Your task to perform on an android device: Play the last video I watched on Youtube Image 0: 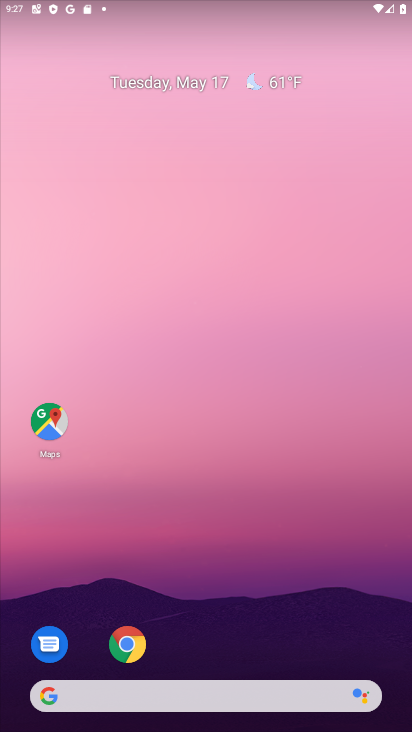
Step 0: drag from (213, 637) to (253, 145)
Your task to perform on an android device: Play the last video I watched on Youtube Image 1: 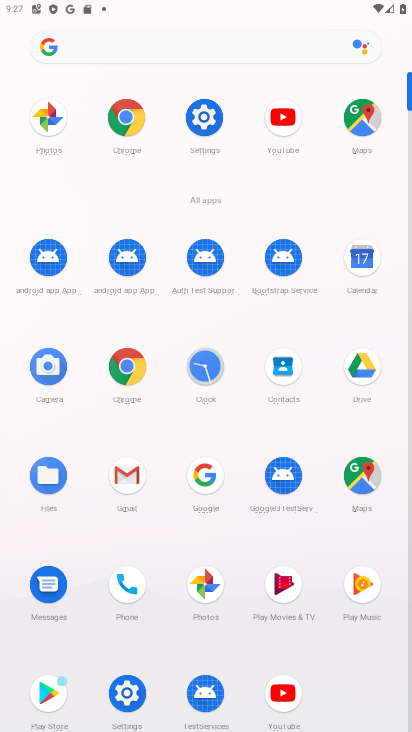
Step 1: click (291, 132)
Your task to perform on an android device: Play the last video I watched on Youtube Image 2: 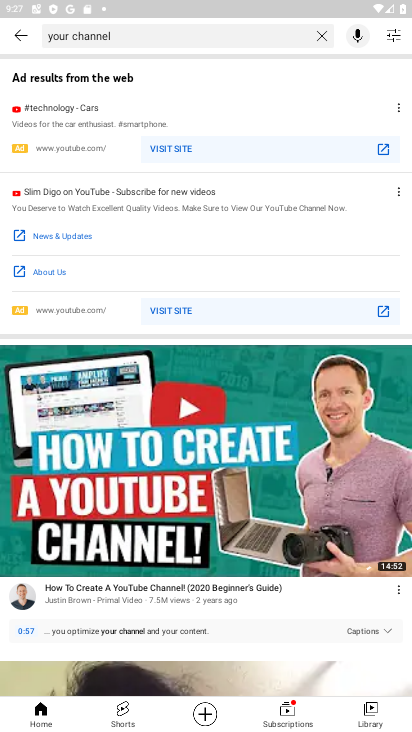
Step 2: click (378, 713)
Your task to perform on an android device: Play the last video I watched on Youtube Image 3: 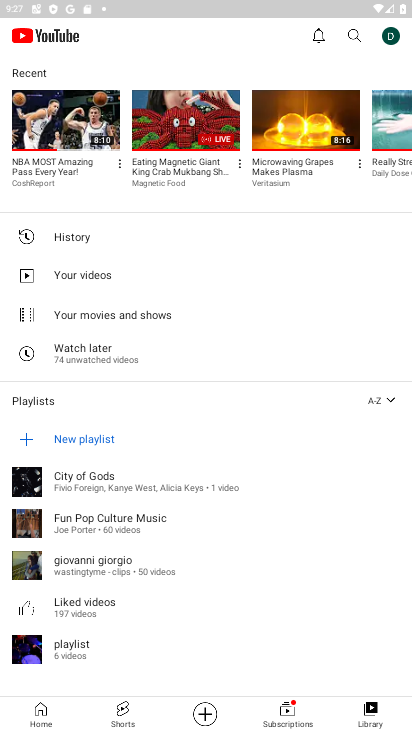
Step 3: click (70, 112)
Your task to perform on an android device: Play the last video I watched on Youtube Image 4: 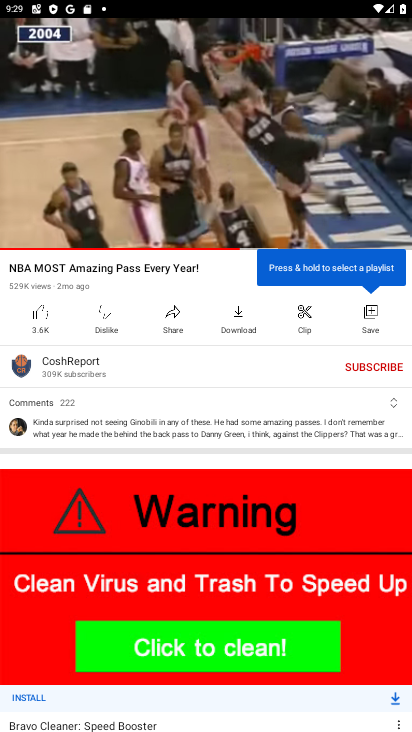
Step 4: task complete